Your task to perform on an android device: turn notification dots off Image 0: 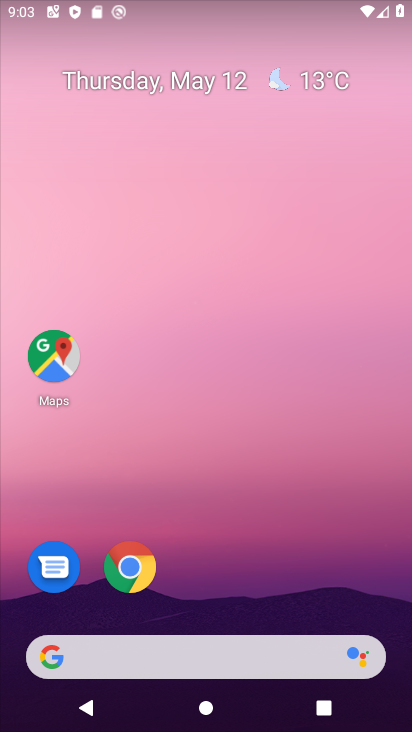
Step 0: drag from (191, 614) to (224, 102)
Your task to perform on an android device: turn notification dots off Image 1: 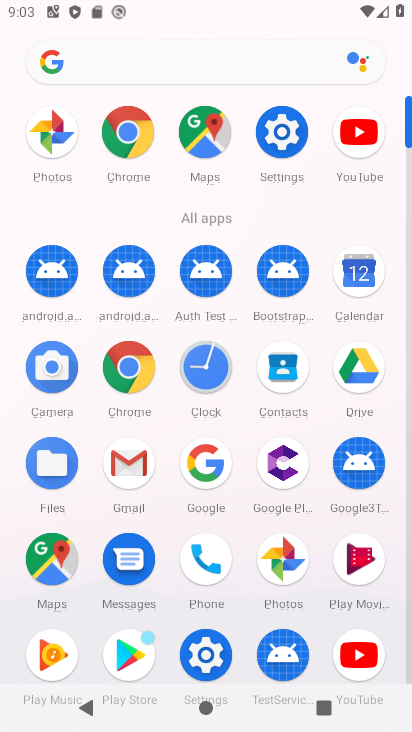
Step 1: click (274, 123)
Your task to perform on an android device: turn notification dots off Image 2: 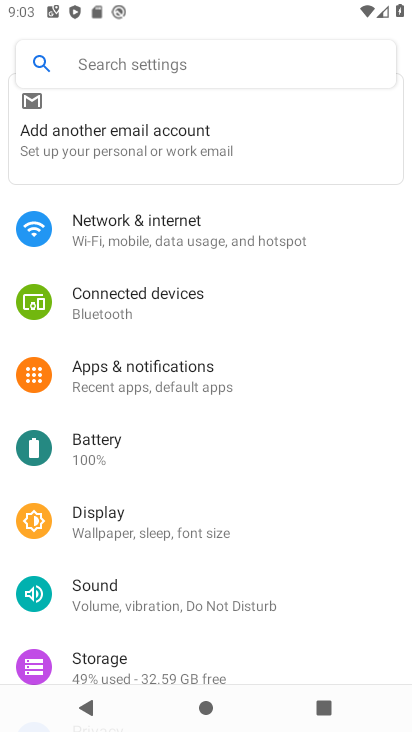
Step 2: click (154, 380)
Your task to perform on an android device: turn notification dots off Image 3: 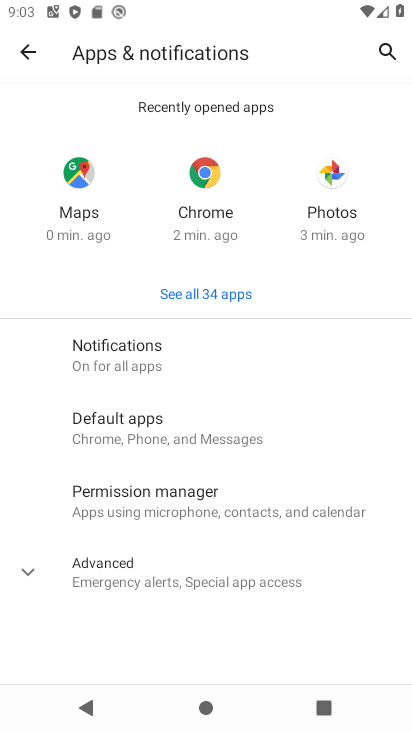
Step 3: click (155, 359)
Your task to perform on an android device: turn notification dots off Image 4: 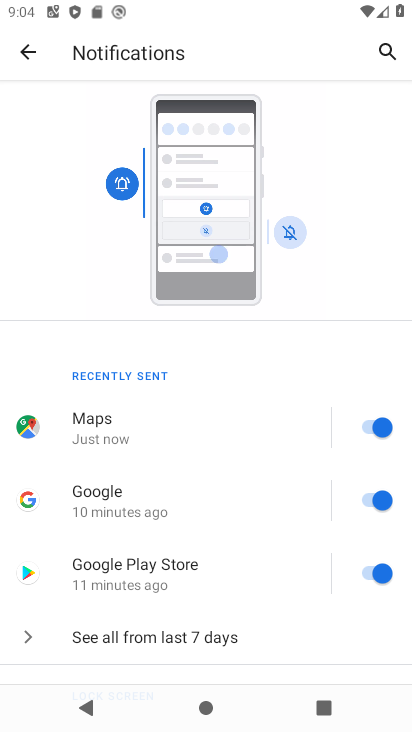
Step 4: drag from (164, 603) to (206, 265)
Your task to perform on an android device: turn notification dots off Image 5: 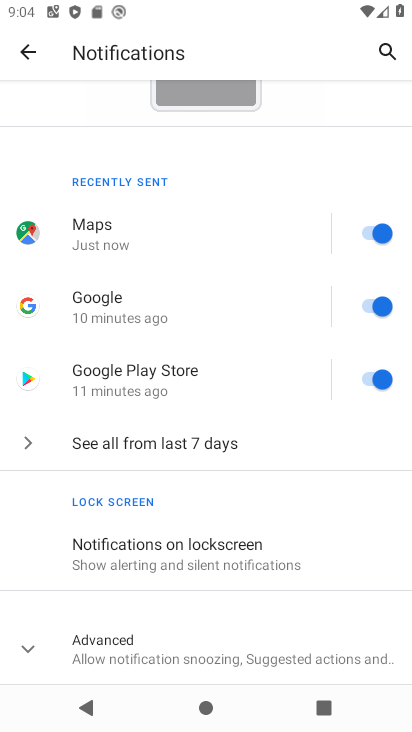
Step 5: click (134, 640)
Your task to perform on an android device: turn notification dots off Image 6: 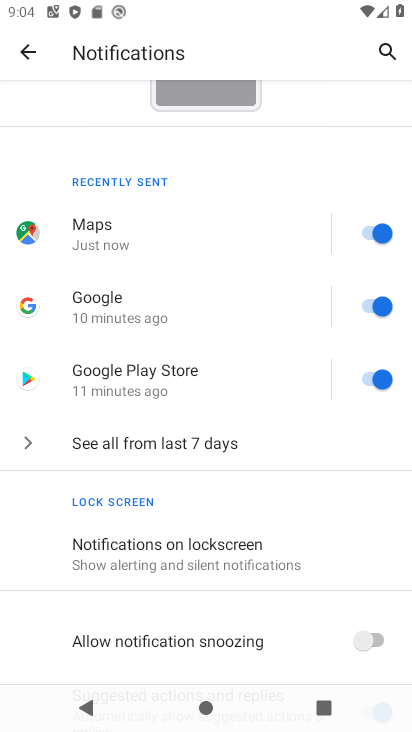
Step 6: drag from (214, 594) to (213, 137)
Your task to perform on an android device: turn notification dots off Image 7: 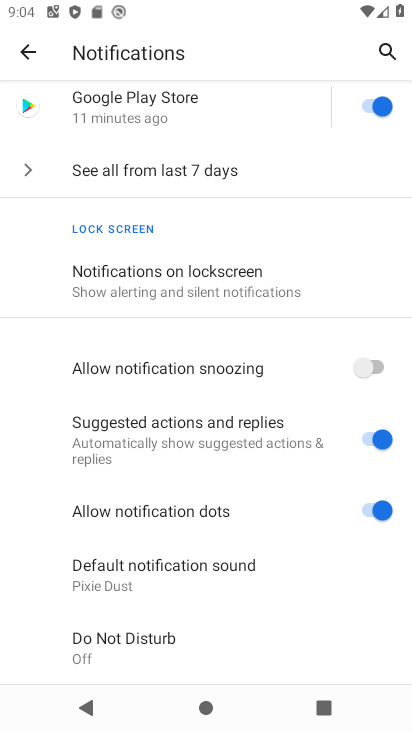
Step 7: click (373, 507)
Your task to perform on an android device: turn notification dots off Image 8: 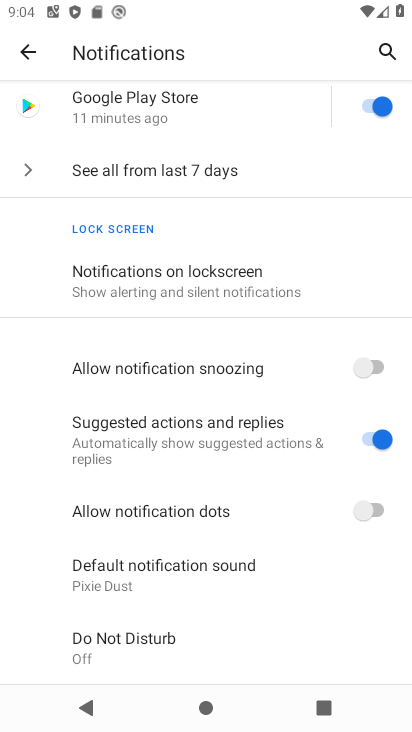
Step 8: task complete